Your task to perform on an android device: change notifications settings Image 0: 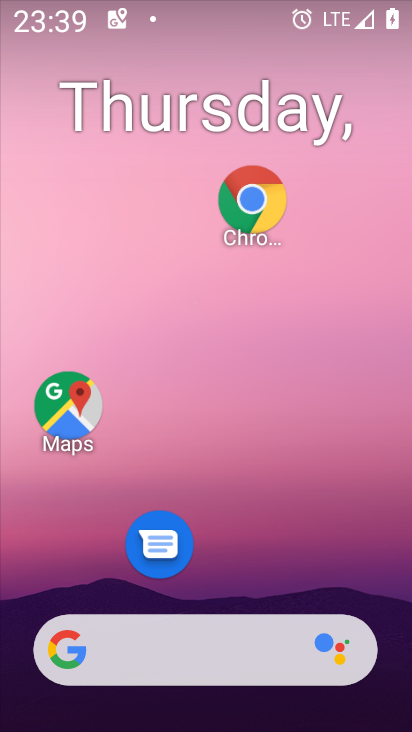
Step 0: drag from (211, 585) to (222, 16)
Your task to perform on an android device: change notifications settings Image 1: 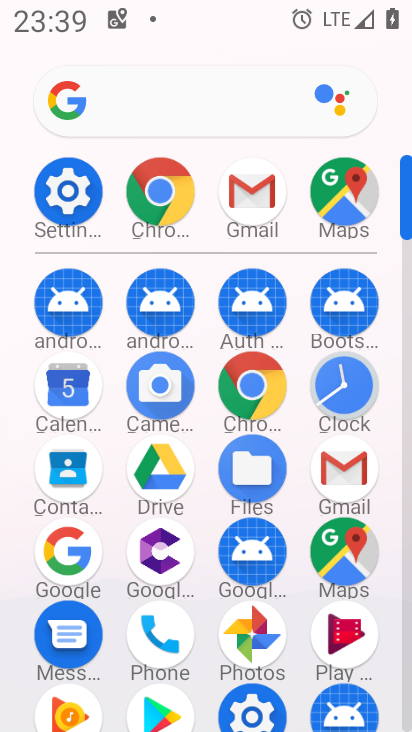
Step 1: click (77, 192)
Your task to perform on an android device: change notifications settings Image 2: 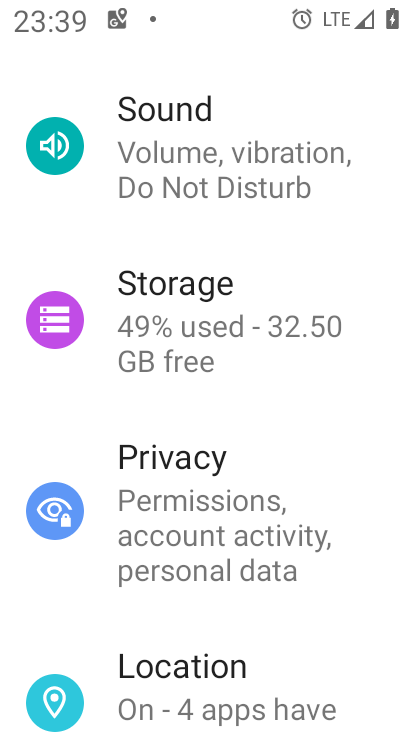
Step 2: drag from (177, 164) to (109, 680)
Your task to perform on an android device: change notifications settings Image 3: 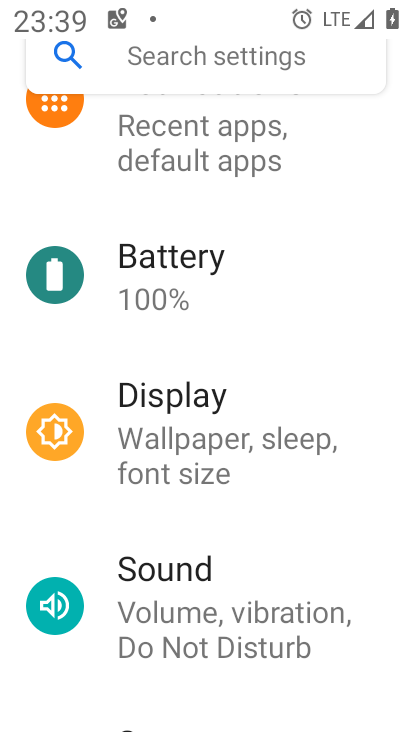
Step 3: drag from (216, 198) to (234, 620)
Your task to perform on an android device: change notifications settings Image 4: 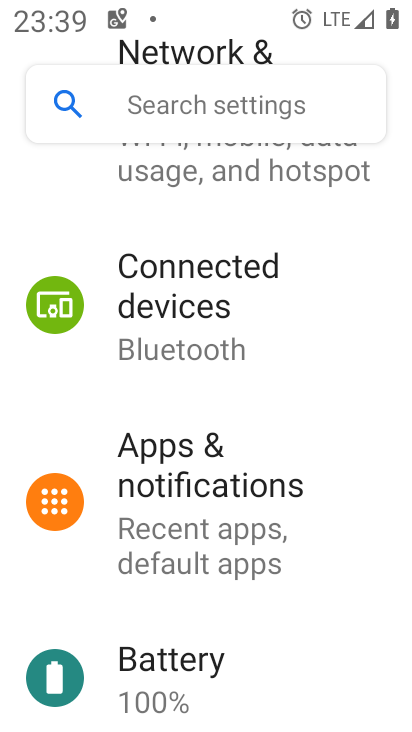
Step 4: click (194, 202)
Your task to perform on an android device: change notifications settings Image 5: 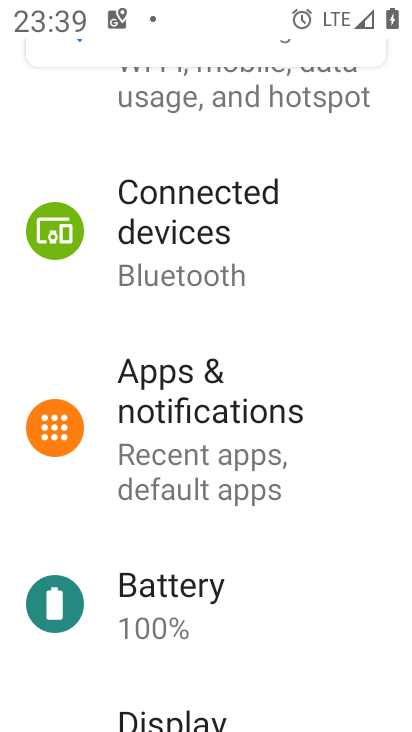
Step 5: click (187, 446)
Your task to perform on an android device: change notifications settings Image 6: 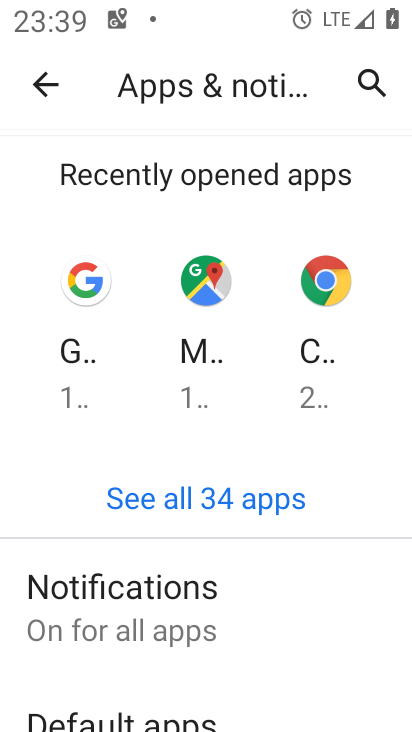
Step 6: click (74, 610)
Your task to perform on an android device: change notifications settings Image 7: 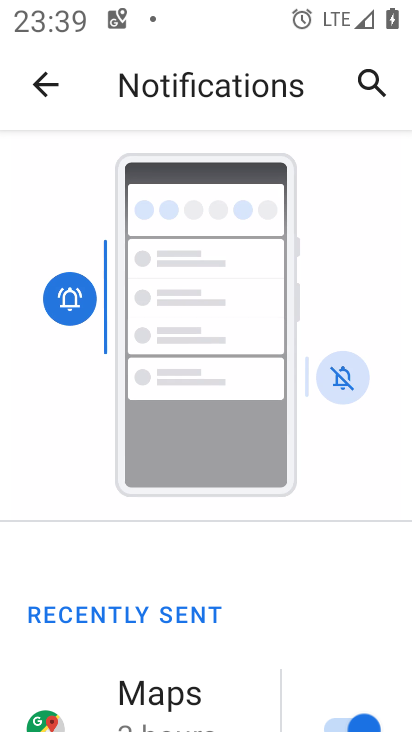
Step 7: drag from (129, 677) to (247, 191)
Your task to perform on an android device: change notifications settings Image 8: 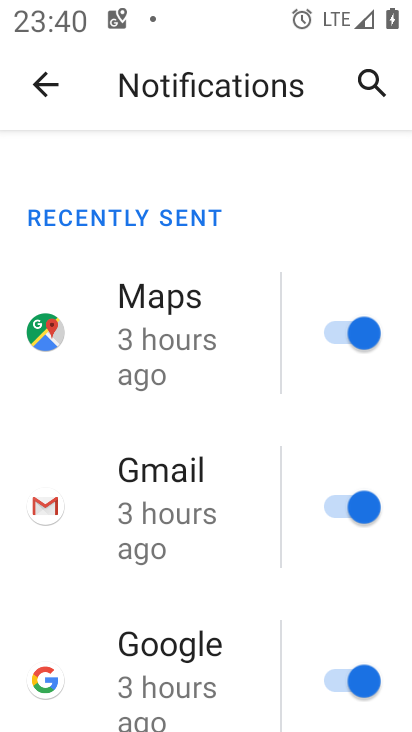
Step 8: drag from (159, 592) to (231, 161)
Your task to perform on an android device: change notifications settings Image 9: 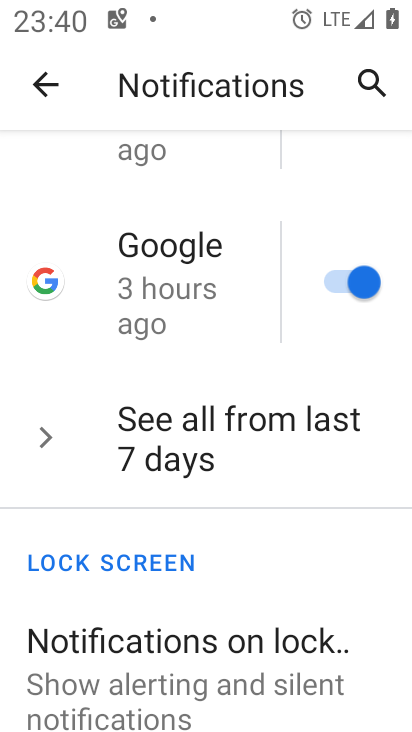
Step 9: drag from (92, 591) to (252, 137)
Your task to perform on an android device: change notifications settings Image 10: 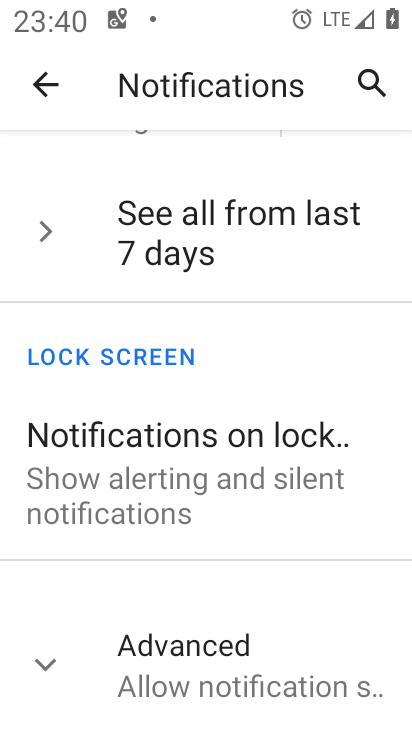
Step 10: click (177, 434)
Your task to perform on an android device: change notifications settings Image 11: 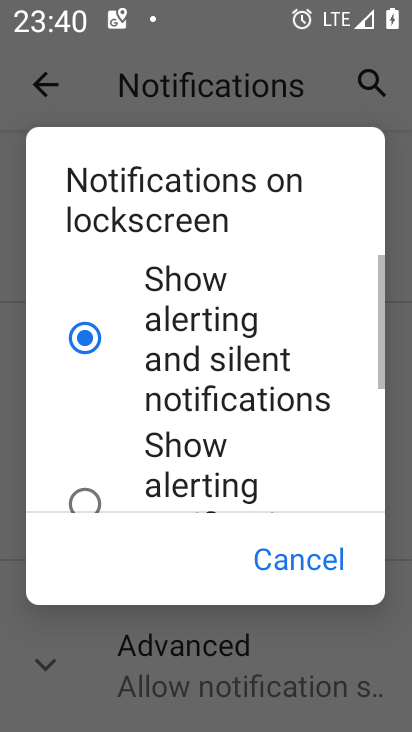
Step 11: click (177, 434)
Your task to perform on an android device: change notifications settings Image 12: 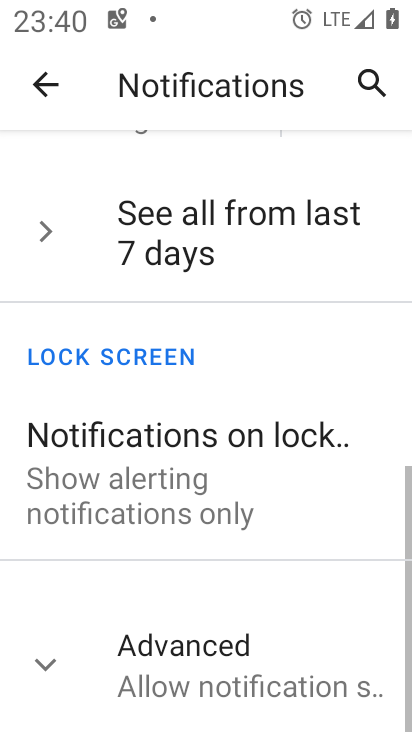
Step 12: click (179, 657)
Your task to perform on an android device: change notifications settings Image 13: 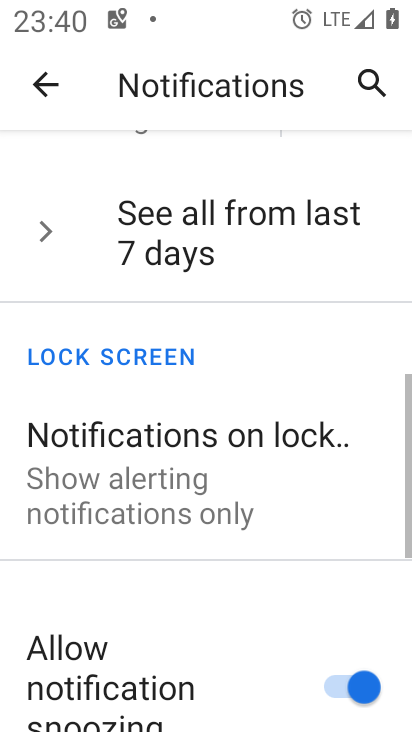
Step 13: drag from (179, 657) to (257, 166)
Your task to perform on an android device: change notifications settings Image 14: 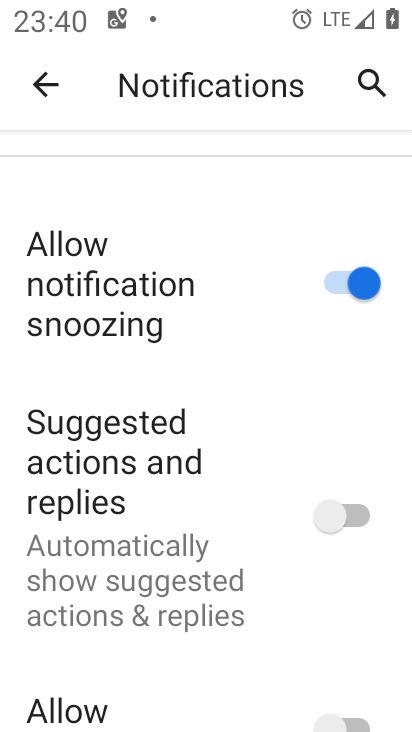
Step 14: drag from (127, 585) to (196, 268)
Your task to perform on an android device: change notifications settings Image 15: 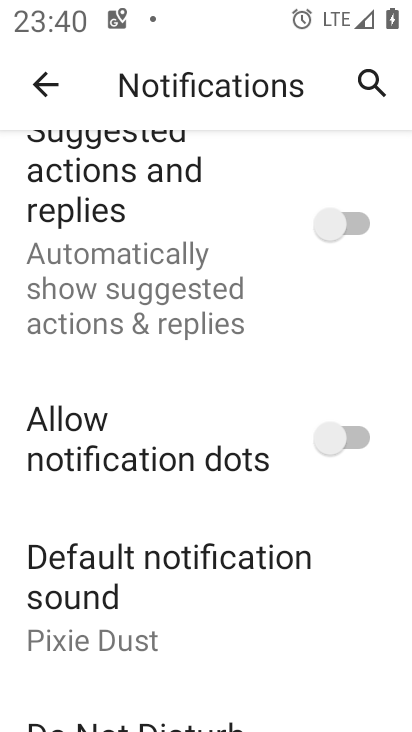
Step 15: click (363, 236)
Your task to perform on an android device: change notifications settings Image 16: 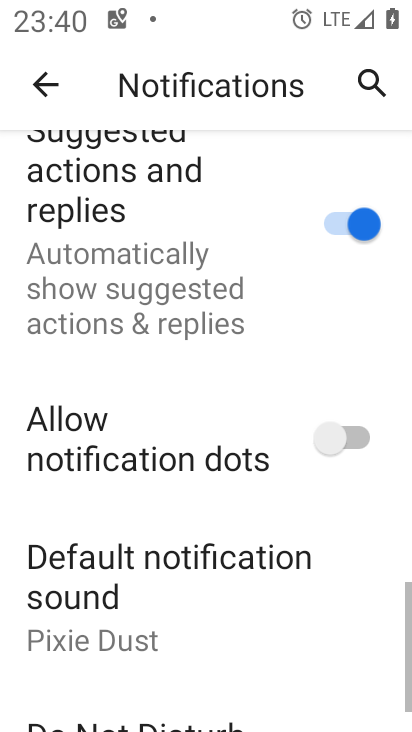
Step 16: click (347, 438)
Your task to perform on an android device: change notifications settings Image 17: 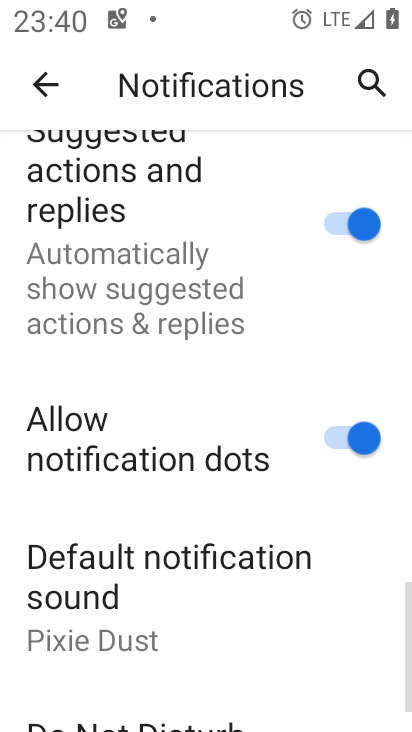
Step 17: task complete